Your task to perform on an android device: open app "Adobe Acrobat Reader: Edit PDF" (install if not already installed), go to login, and select forgot password Image 0: 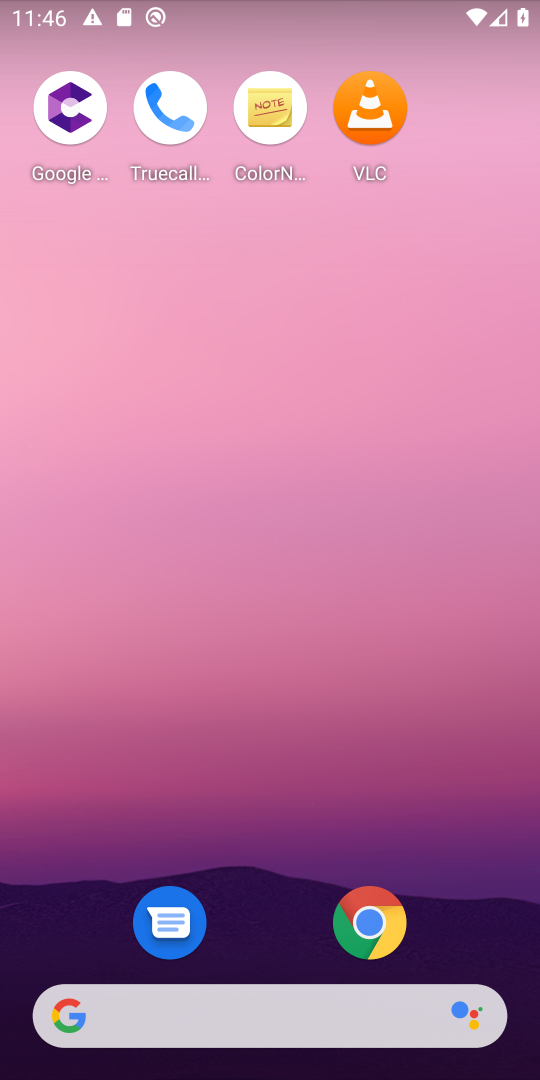
Step 0: drag from (272, 934) to (180, 323)
Your task to perform on an android device: open app "Adobe Acrobat Reader: Edit PDF" (install if not already installed), go to login, and select forgot password Image 1: 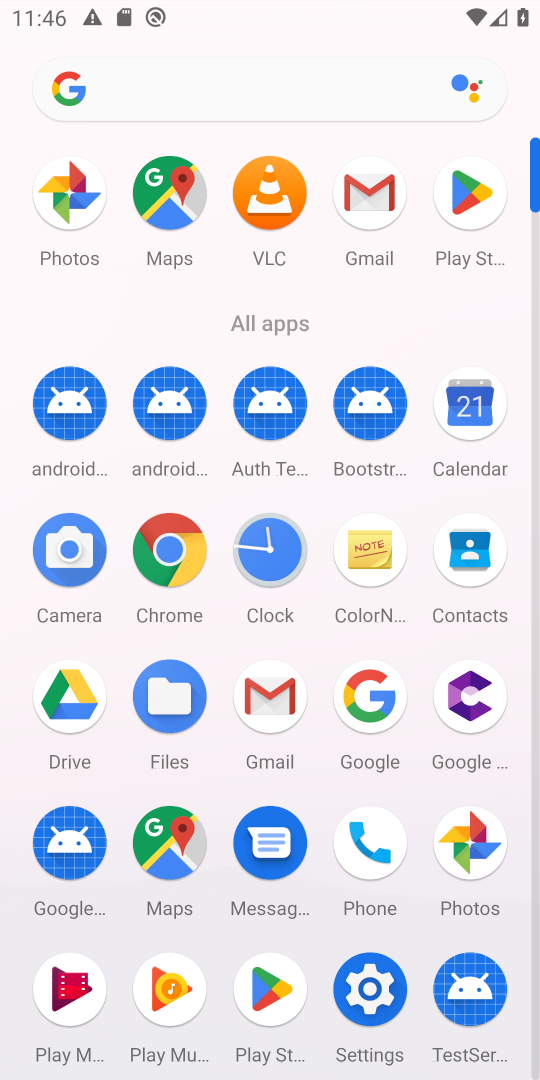
Step 1: click (267, 970)
Your task to perform on an android device: open app "Adobe Acrobat Reader: Edit PDF" (install if not already installed), go to login, and select forgot password Image 2: 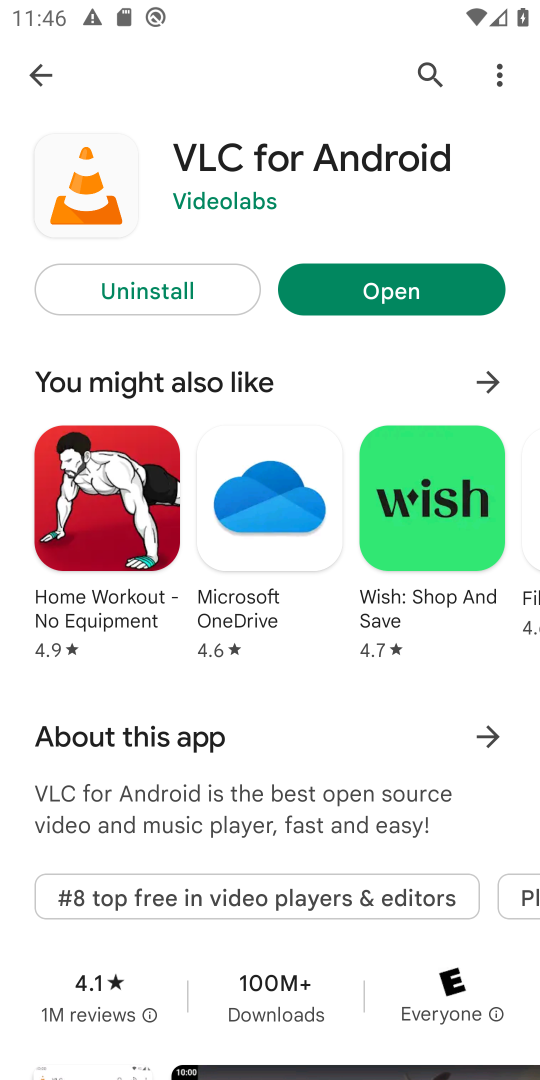
Step 2: click (28, 77)
Your task to perform on an android device: open app "Adobe Acrobat Reader: Edit PDF" (install if not already installed), go to login, and select forgot password Image 3: 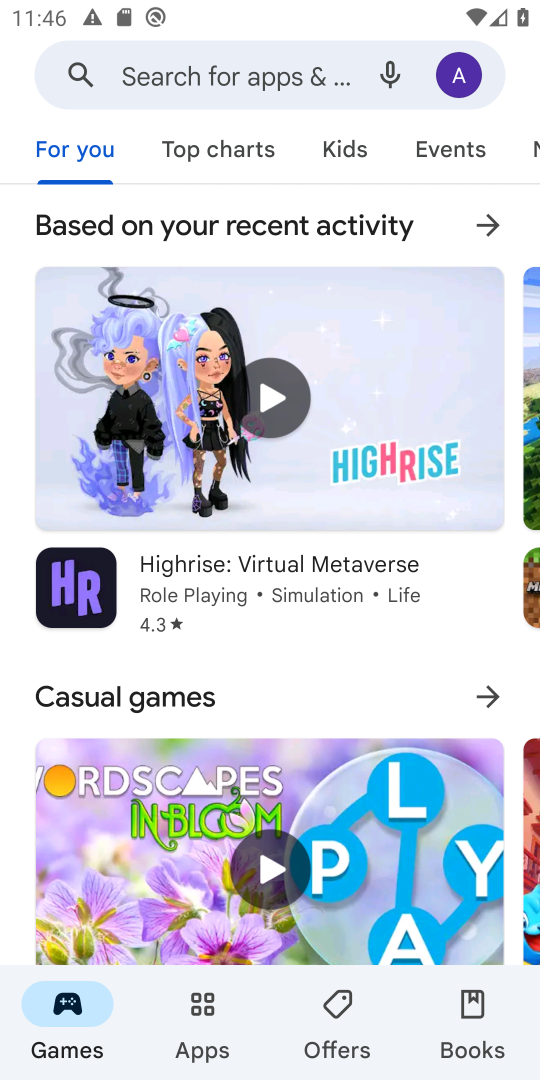
Step 3: click (145, 95)
Your task to perform on an android device: open app "Adobe Acrobat Reader: Edit PDF" (install if not already installed), go to login, and select forgot password Image 4: 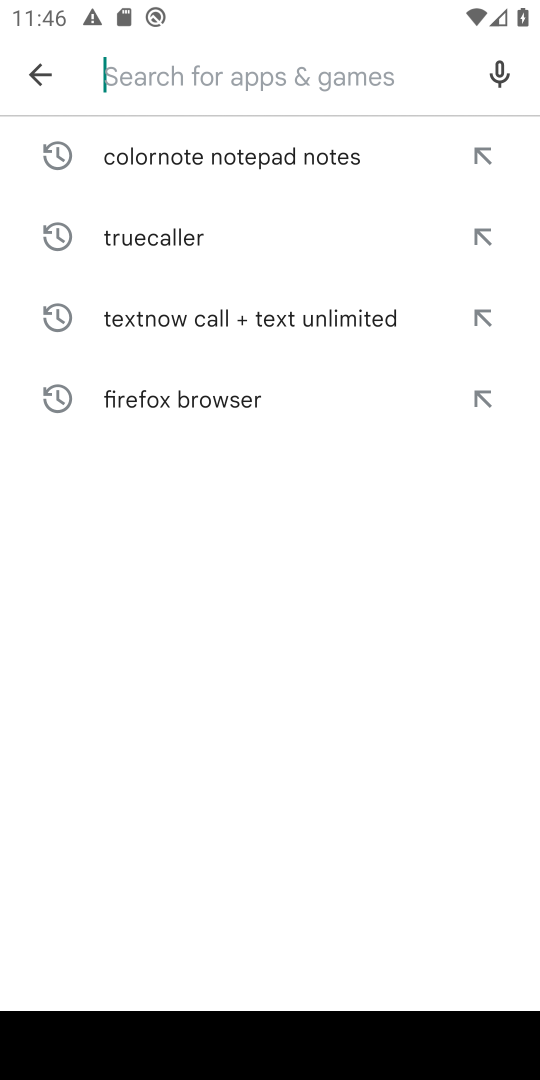
Step 4: drag from (236, 1075) to (391, 1040)
Your task to perform on an android device: open app "Adobe Acrobat Reader: Edit PDF" (install if not already installed), go to login, and select forgot password Image 5: 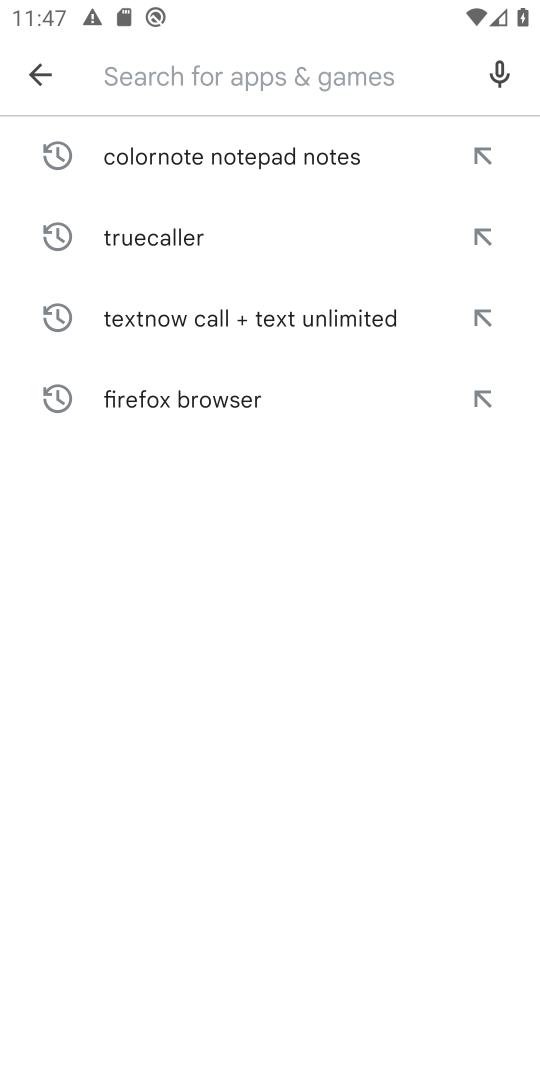
Step 5: type "Adobe Acrobat Reader: Edit PDF"
Your task to perform on an android device: open app "Adobe Acrobat Reader: Edit PDF" (install if not already installed), go to login, and select forgot password Image 6: 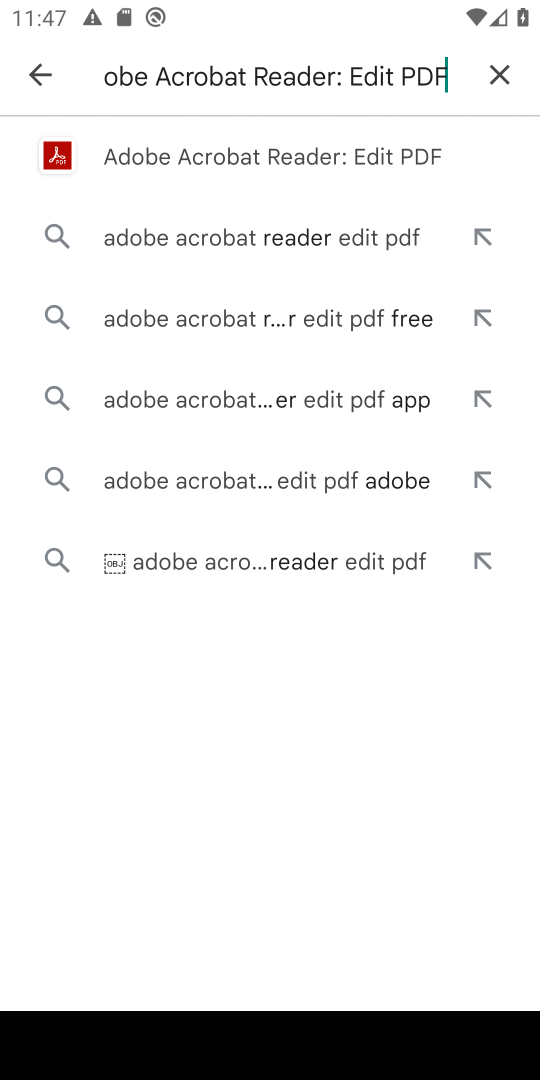
Step 6: click (285, 162)
Your task to perform on an android device: open app "Adobe Acrobat Reader: Edit PDF" (install if not already installed), go to login, and select forgot password Image 7: 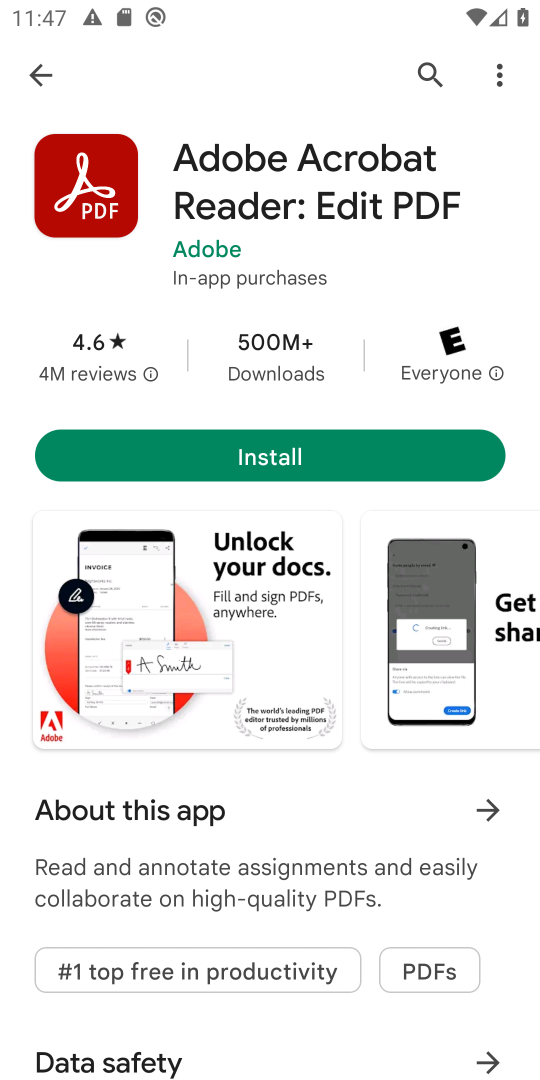
Step 7: click (186, 450)
Your task to perform on an android device: open app "Adobe Acrobat Reader: Edit PDF" (install if not already installed), go to login, and select forgot password Image 8: 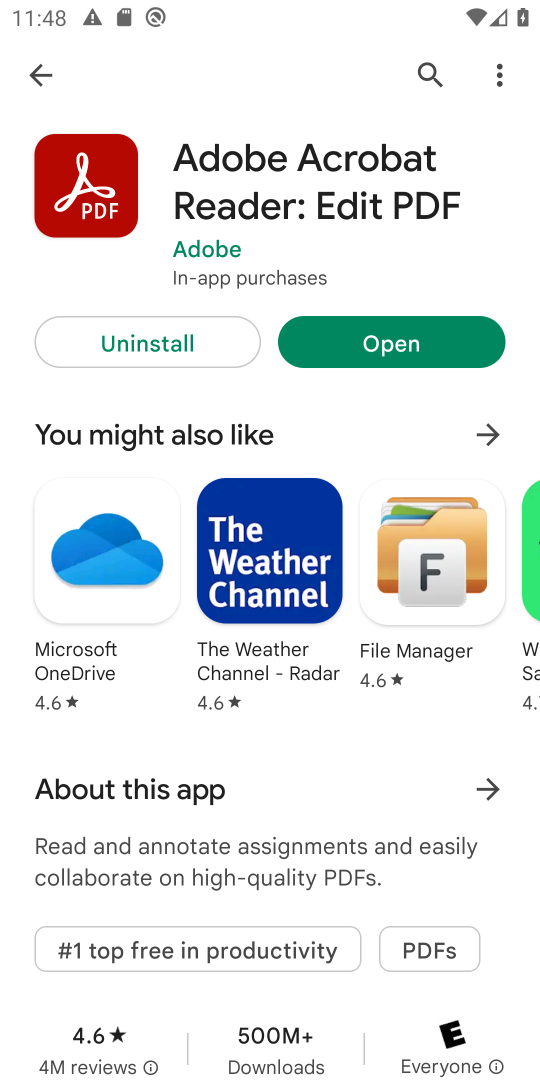
Step 8: click (447, 346)
Your task to perform on an android device: open app "Adobe Acrobat Reader: Edit PDF" (install if not already installed), go to login, and select forgot password Image 9: 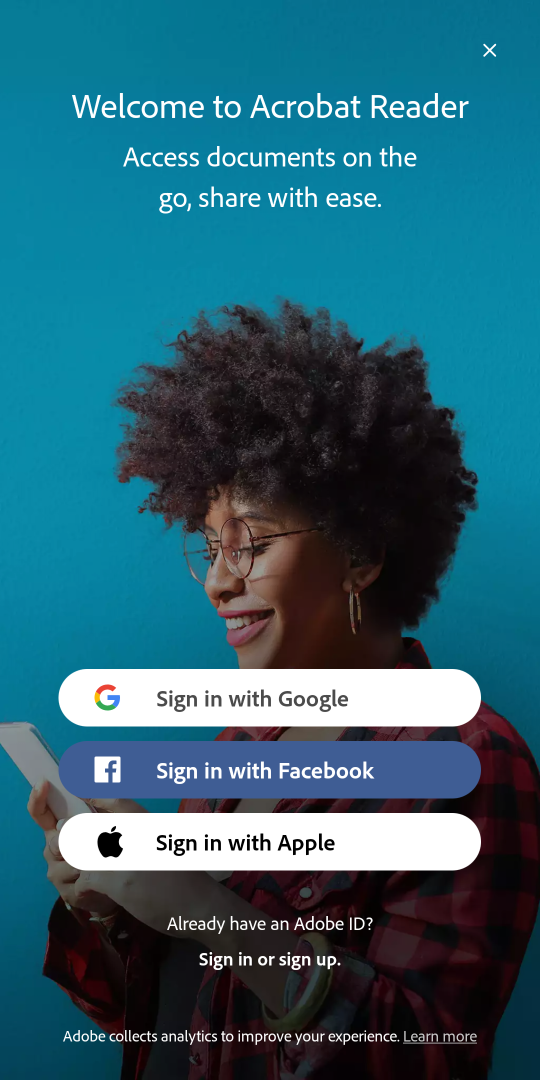
Step 9: click (206, 961)
Your task to perform on an android device: open app "Adobe Acrobat Reader: Edit PDF" (install if not already installed), go to login, and select forgot password Image 10: 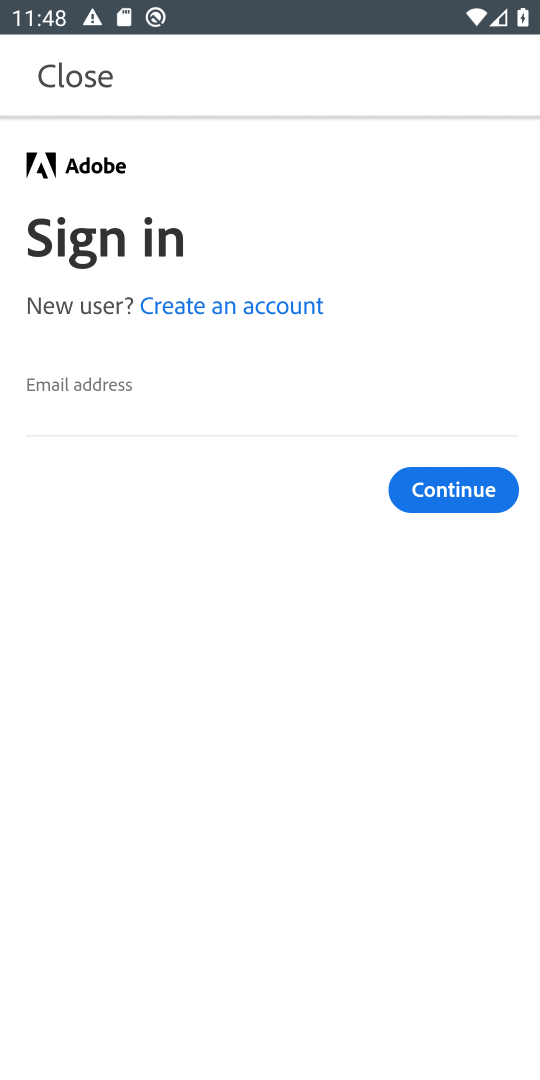
Step 10: task complete